Your task to perform on an android device: Open Google Maps Image 0: 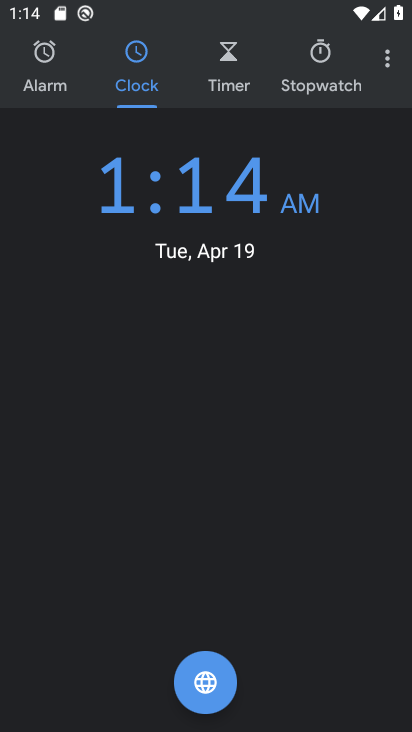
Step 0: press back button
Your task to perform on an android device: Open Google Maps Image 1: 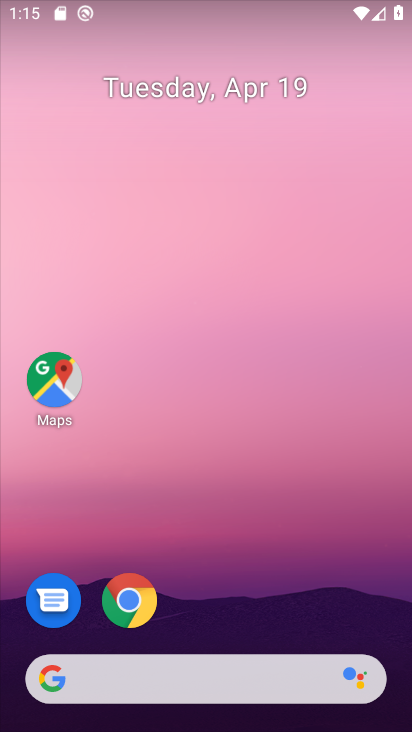
Step 1: drag from (190, 426) to (124, 17)
Your task to perform on an android device: Open Google Maps Image 2: 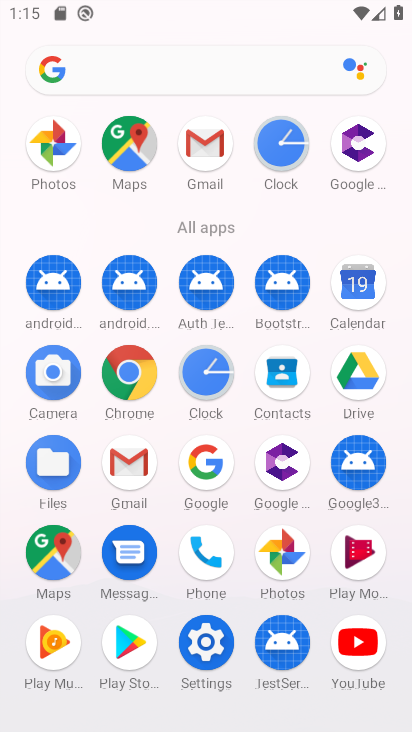
Step 2: drag from (9, 472) to (4, 251)
Your task to perform on an android device: Open Google Maps Image 3: 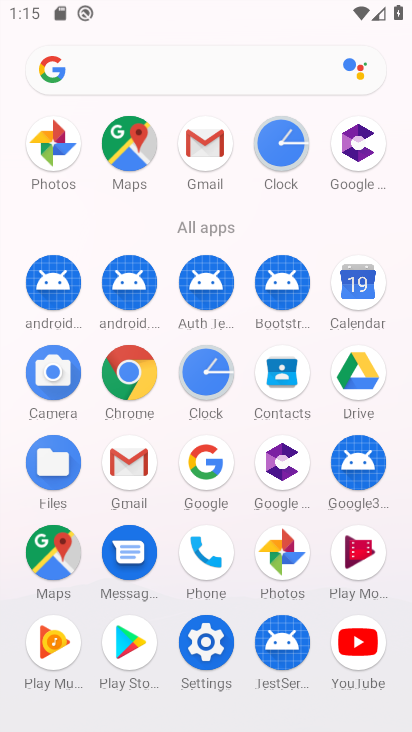
Step 3: click (126, 138)
Your task to perform on an android device: Open Google Maps Image 4: 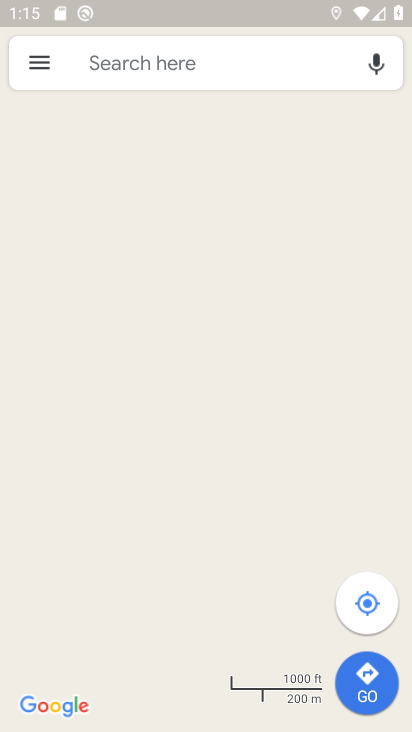
Step 4: click (211, 72)
Your task to perform on an android device: Open Google Maps Image 5: 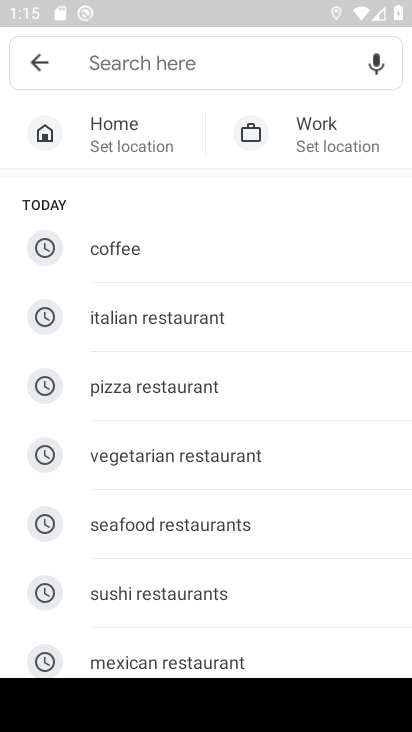
Step 5: click (33, 54)
Your task to perform on an android device: Open Google Maps Image 6: 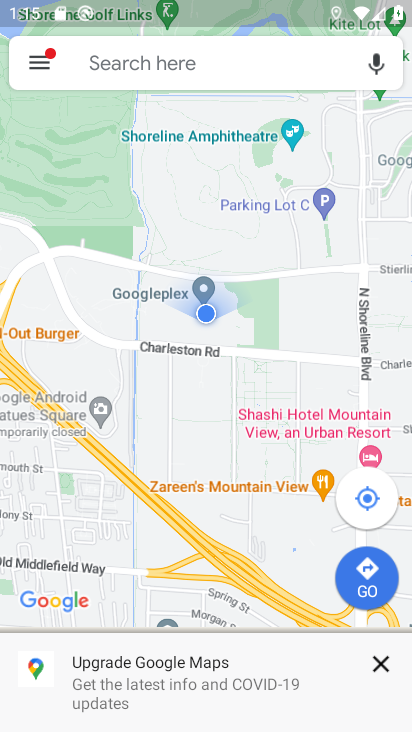
Step 6: task complete